Your task to perform on an android device: Open maps Image 0: 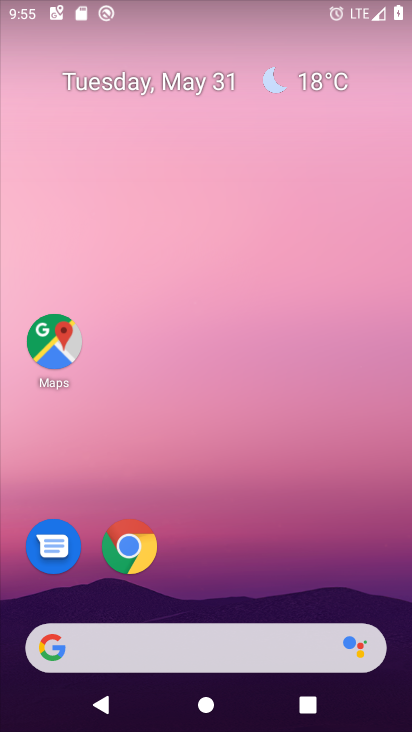
Step 0: click (52, 352)
Your task to perform on an android device: Open maps Image 1: 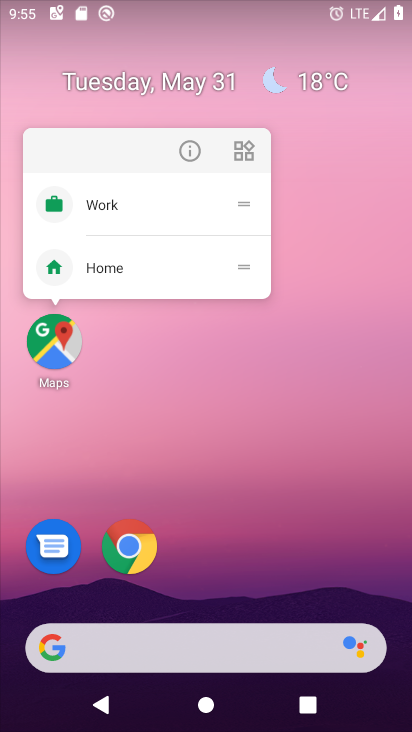
Step 1: click (52, 352)
Your task to perform on an android device: Open maps Image 2: 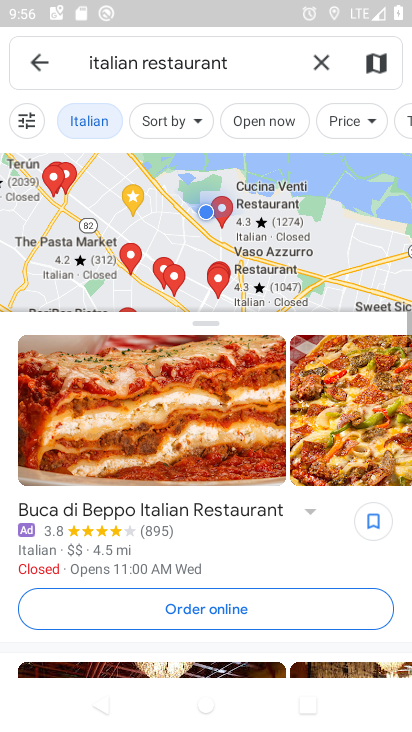
Step 2: click (36, 52)
Your task to perform on an android device: Open maps Image 3: 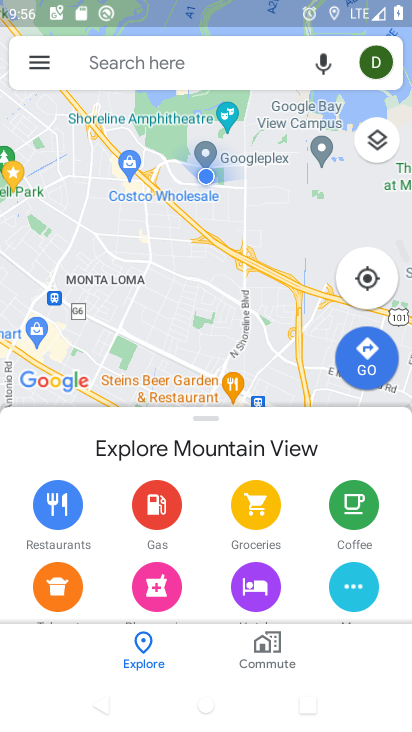
Step 3: task complete